Your task to perform on an android device: Go to calendar. Show me events next week Image 0: 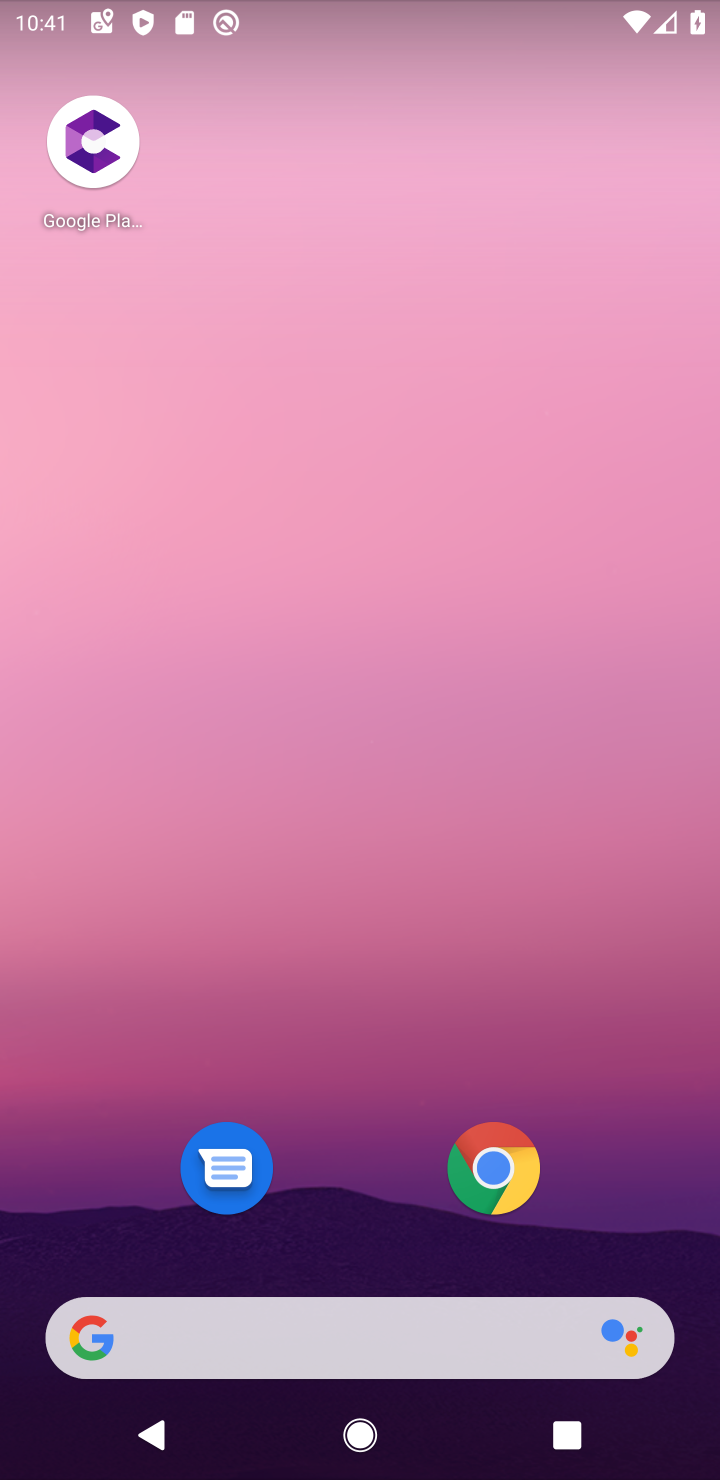
Step 0: drag from (637, 1148) to (377, 31)
Your task to perform on an android device: Go to calendar. Show me events next week Image 1: 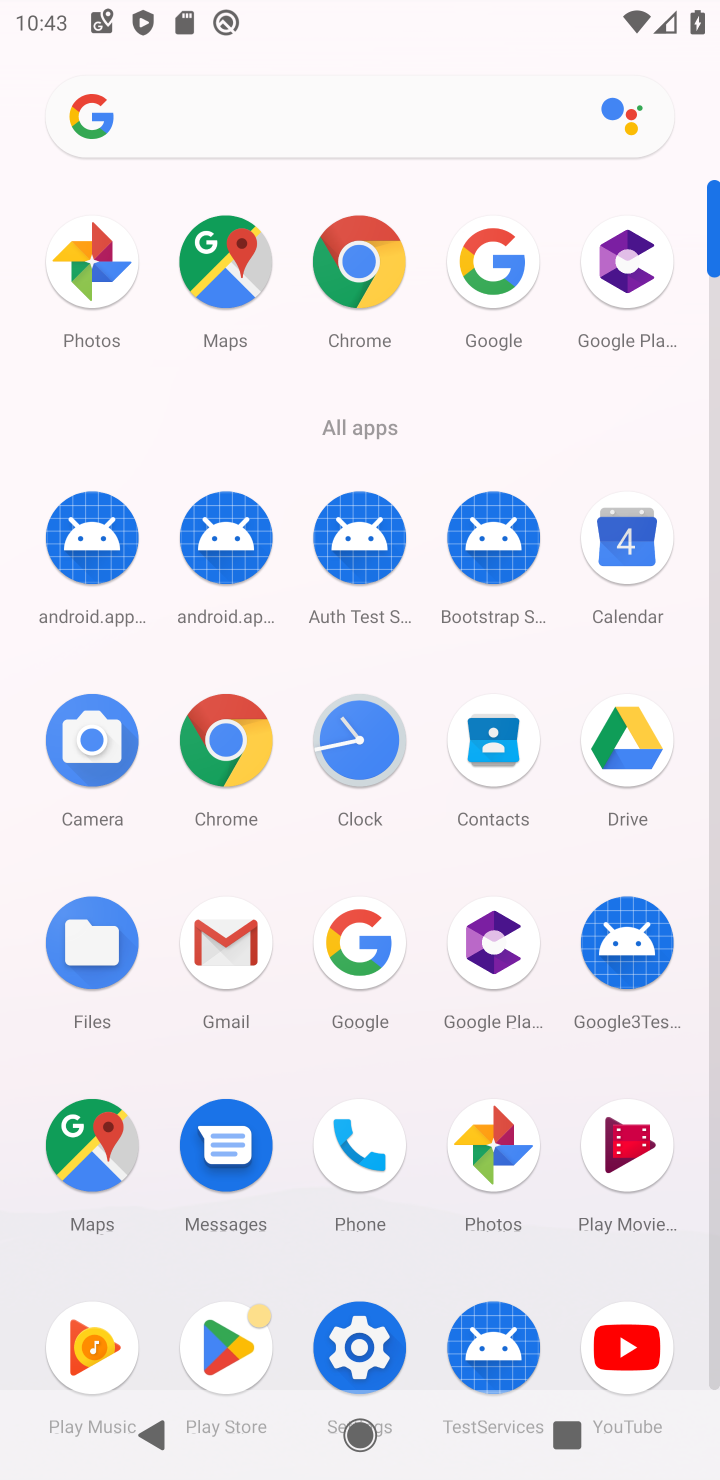
Step 1: click (610, 557)
Your task to perform on an android device: Go to calendar. Show me events next week Image 2: 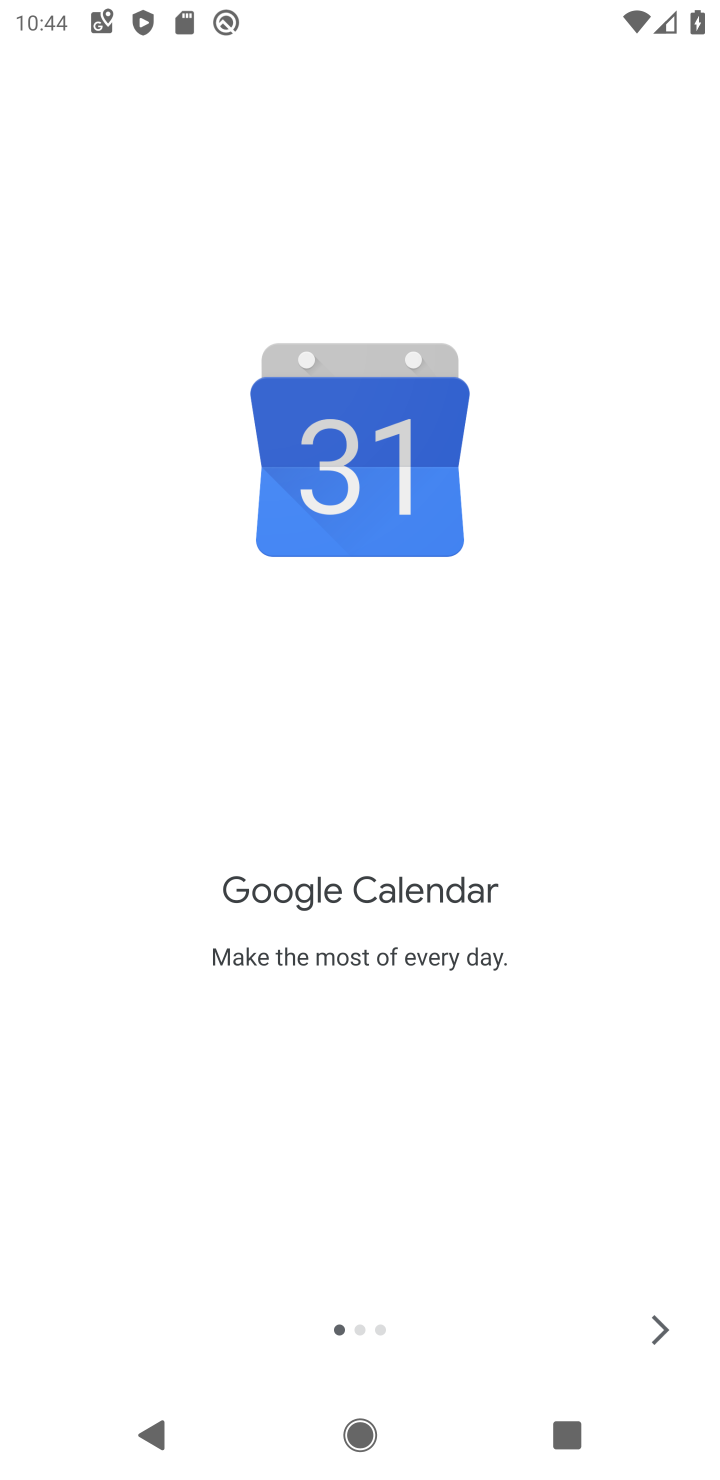
Step 2: click (675, 1328)
Your task to perform on an android device: Go to calendar. Show me events next week Image 3: 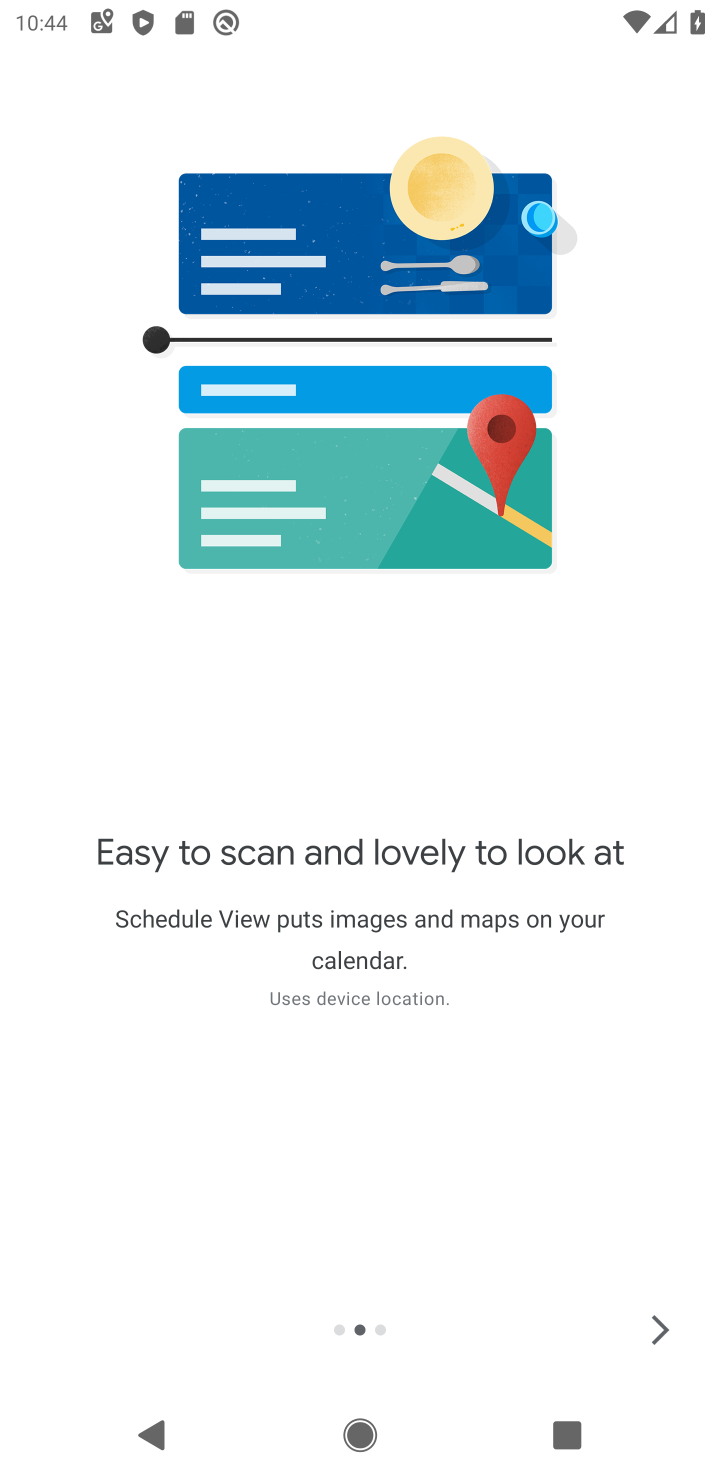
Step 3: click (657, 1327)
Your task to perform on an android device: Go to calendar. Show me events next week Image 4: 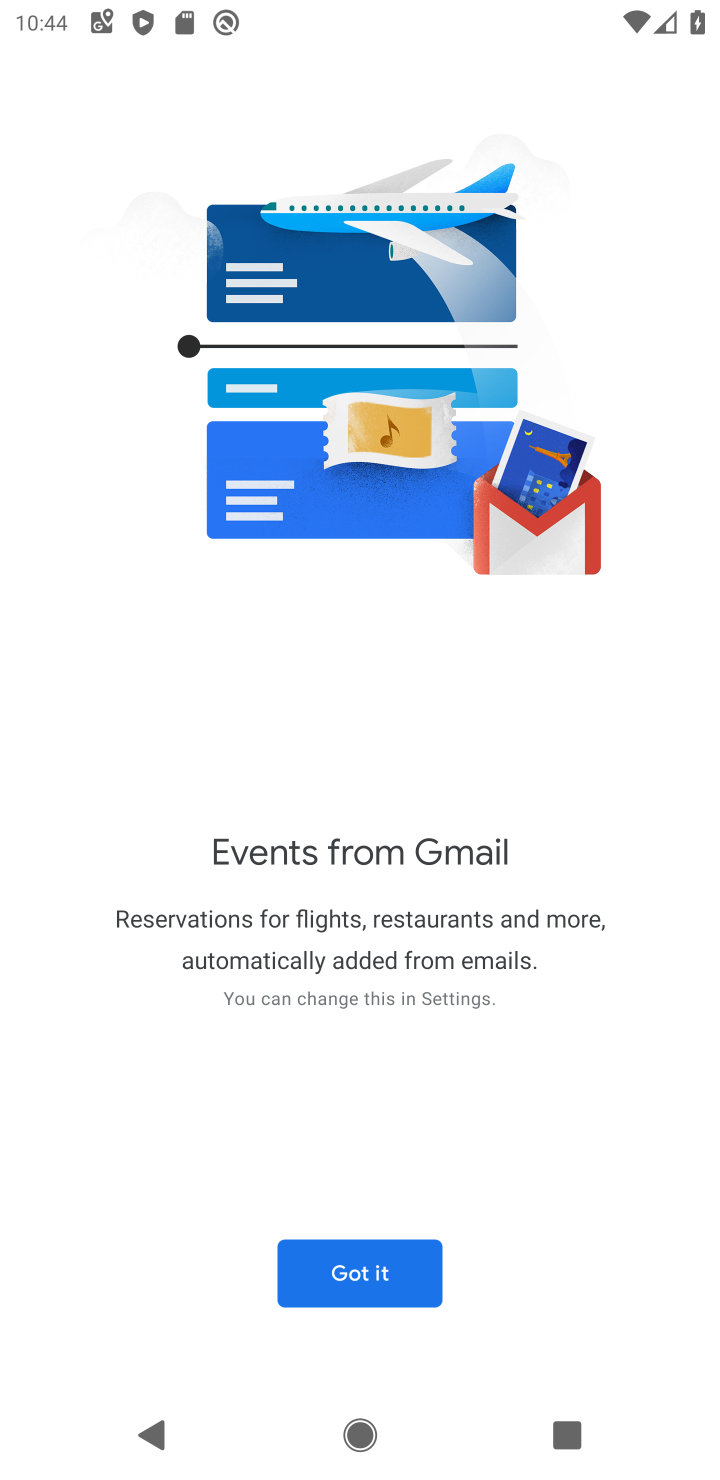
Step 4: click (347, 1289)
Your task to perform on an android device: Go to calendar. Show me events next week Image 5: 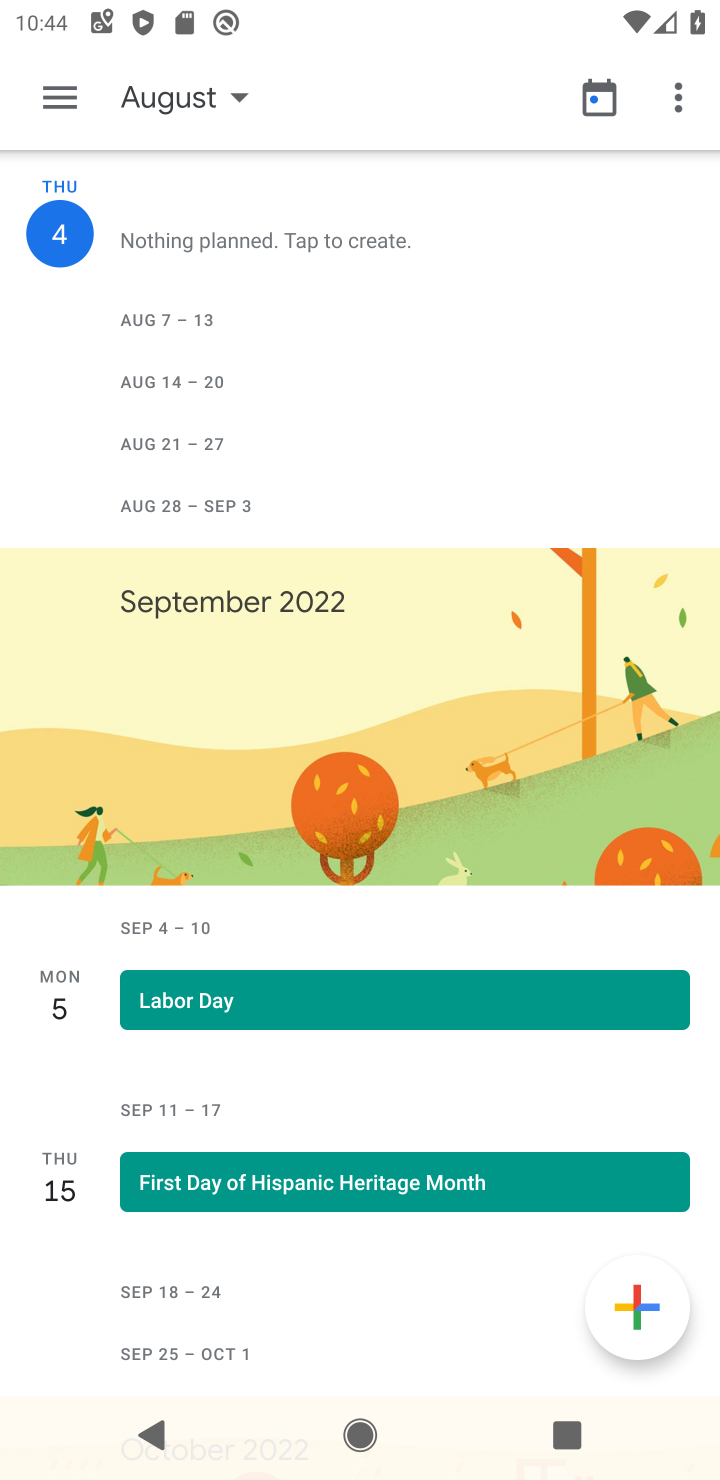
Step 5: task complete